Your task to perform on an android device: change your default location settings in chrome Image 0: 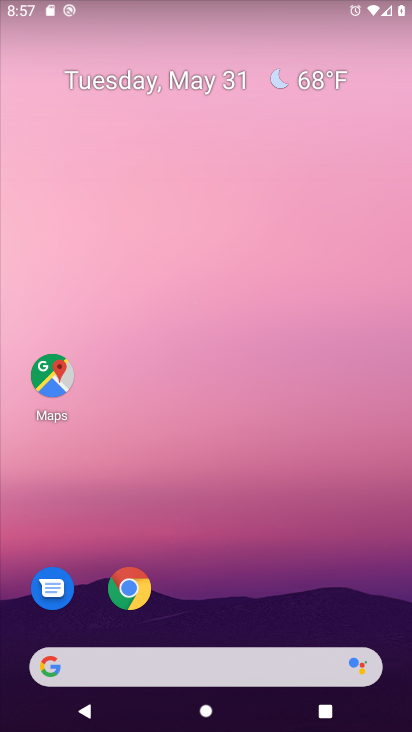
Step 0: press home button
Your task to perform on an android device: change your default location settings in chrome Image 1: 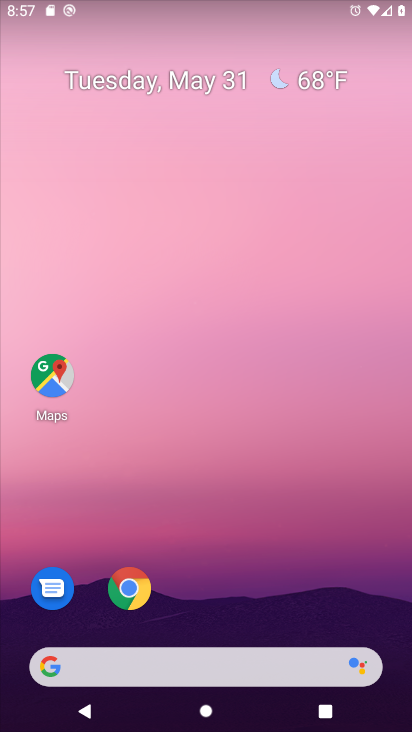
Step 1: click (128, 589)
Your task to perform on an android device: change your default location settings in chrome Image 2: 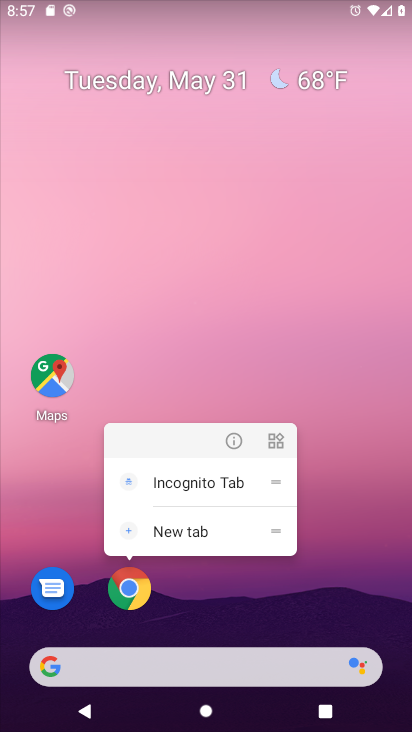
Step 2: click (135, 592)
Your task to perform on an android device: change your default location settings in chrome Image 3: 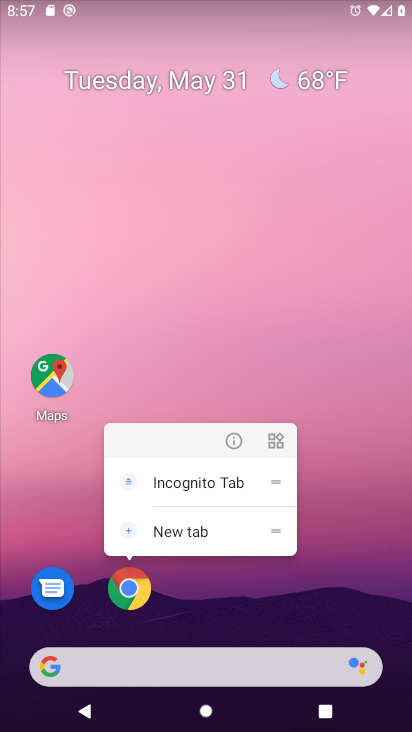
Step 3: click (134, 594)
Your task to perform on an android device: change your default location settings in chrome Image 4: 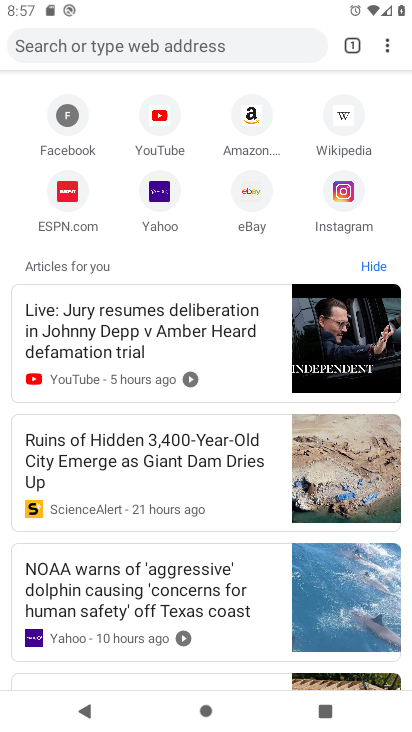
Step 4: drag from (388, 51) to (281, 387)
Your task to perform on an android device: change your default location settings in chrome Image 5: 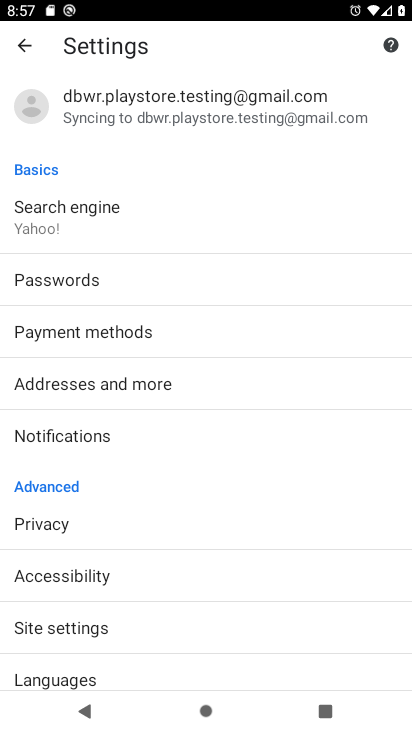
Step 5: click (104, 626)
Your task to perform on an android device: change your default location settings in chrome Image 6: 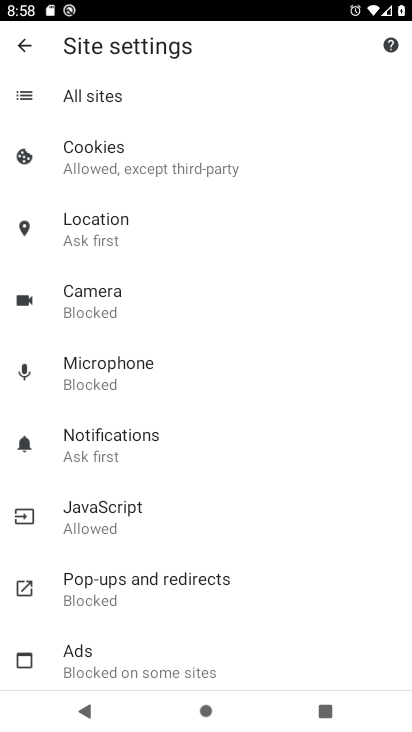
Step 6: click (94, 231)
Your task to perform on an android device: change your default location settings in chrome Image 7: 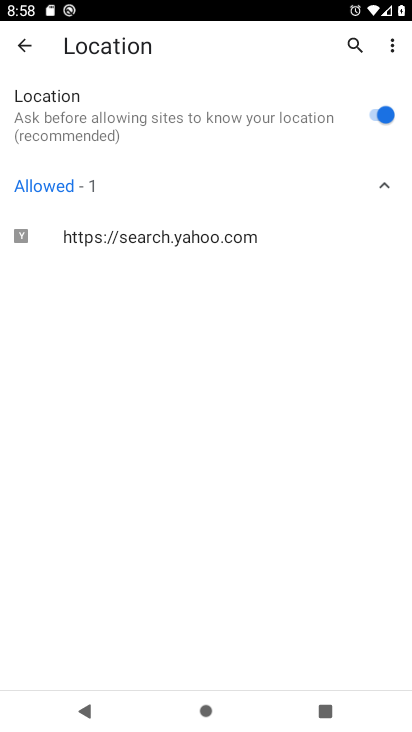
Step 7: click (376, 113)
Your task to perform on an android device: change your default location settings in chrome Image 8: 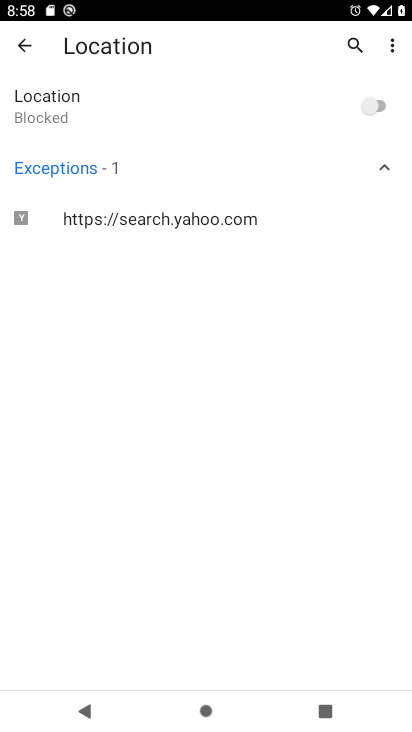
Step 8: task complete